Your task to perform on an android device: stop showing notifications on the lock screen Image 0: 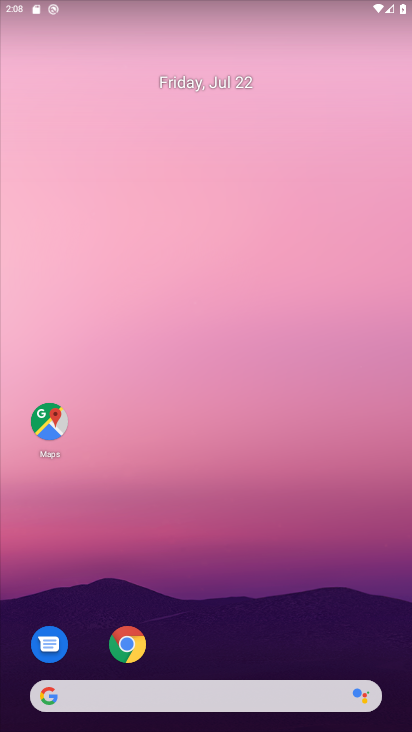
Step 0: drag from (272, 648) to (283, 470)
Your task to perform on an android device: stop showing notifications on the lock screen Image 1: 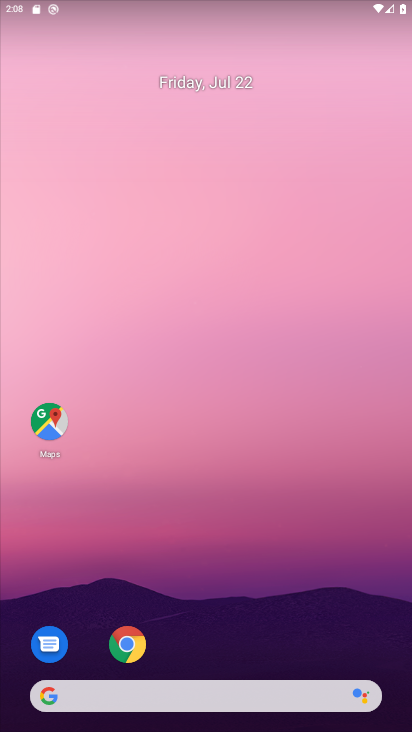
Step 1: drag from (213, 641) to (209, 567)
Your task to perform on an android device: stop showing notifications on the lock screen Image 2: 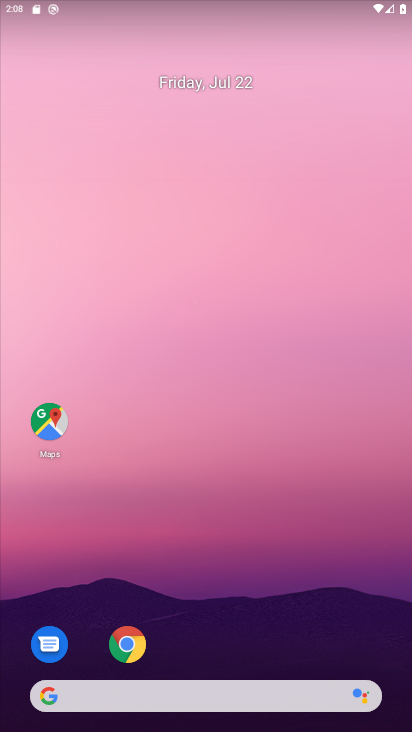
Step 2: drag from (331, 590) to (284, 358)
Your task to perform on an android device: stop showing notifications on the lock screen Image 3: 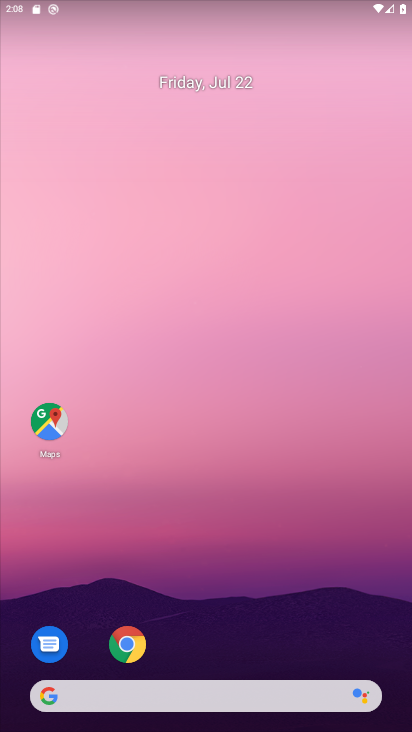
Step 3: drag from (249, 597) to (231, 268)
Your task to perform on an android device: stop showing notifications on the lock screen Image 4: 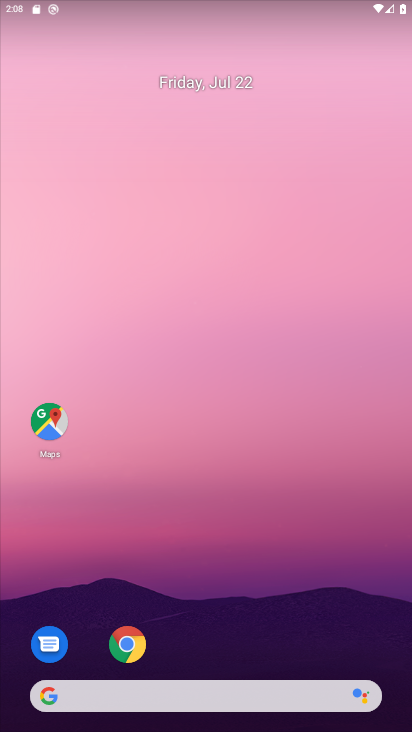
Step 4: drag from (255, 650) to (201, 162)
Your task to perform on an android device: stop showing notifications on the lock screen Image 5: 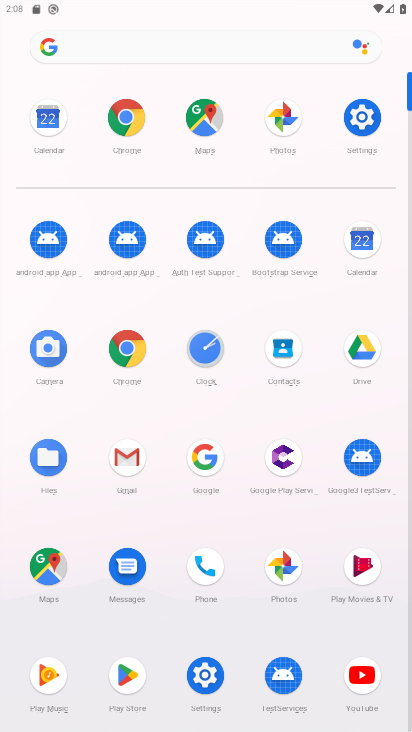
Step 5: click (359, 107)
Your task to perform on an android device: stop showing notifications on the lock screen Image 6: 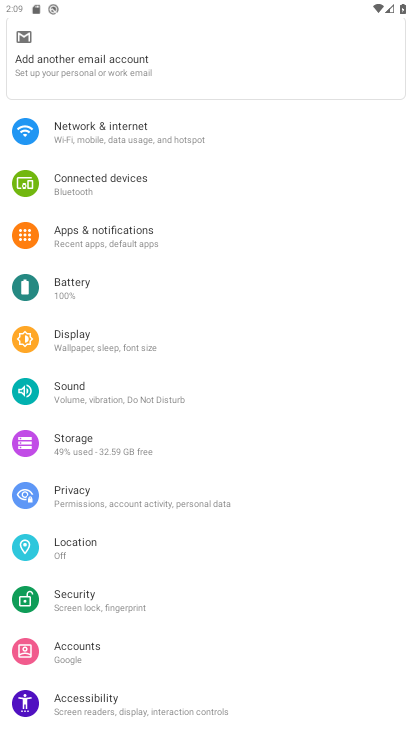
Step 6: click (125, 230)
Your task to perform on an android device: stop showing notifications on the lock screen Image 7: 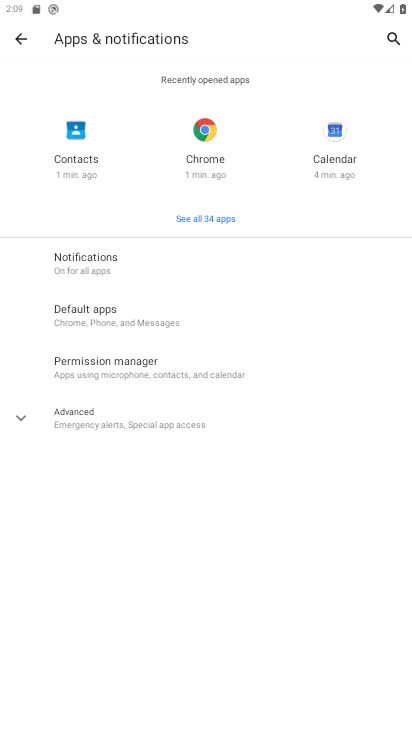
Step 7: click (77, 249)
Your task to perform on an android device: stop showing notifications on the lock screen Image 8: 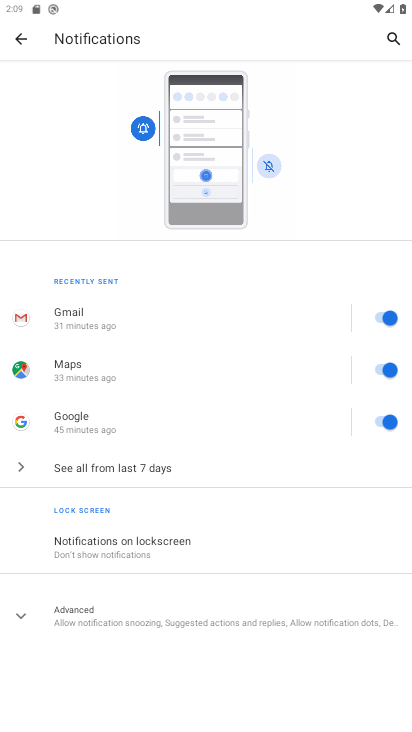
Step 8: click (141, 547)
Your task to perform on an android device: stop showing notifications on the lock screen Image 9: 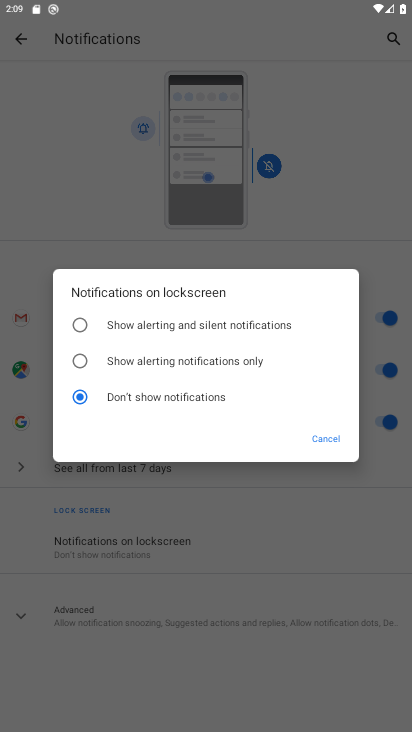
Step 9: task complete